Your task to perform on an android device: Add "lenovo thinkpad" to the cart on bestbuy.com, then select checkout. Image 0: 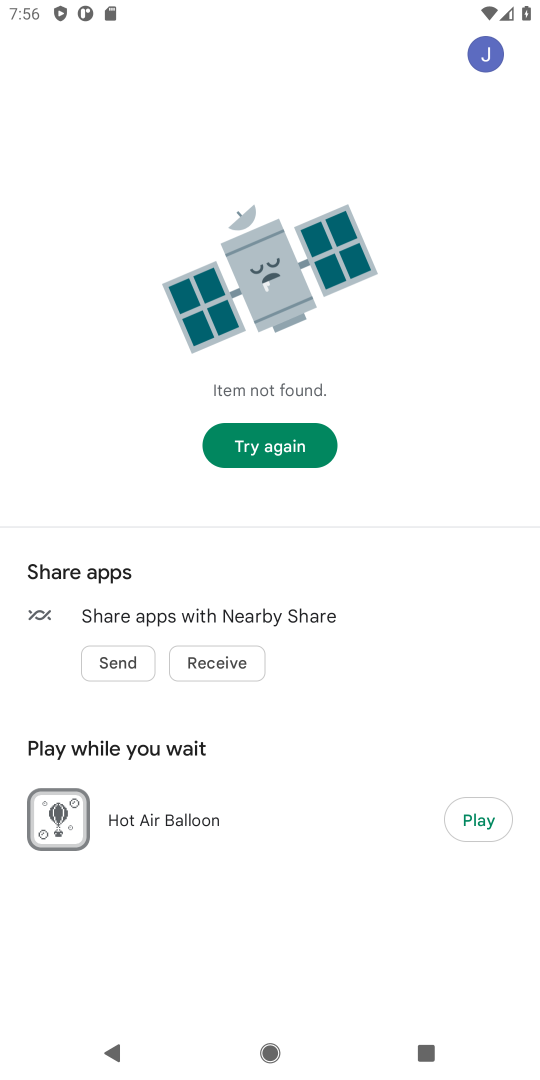
Step 0: press home button
Your task to perform on an android device: Add "lenovo thinkpad" to the cart on bestbuy.com, then select checkout. Image 1: 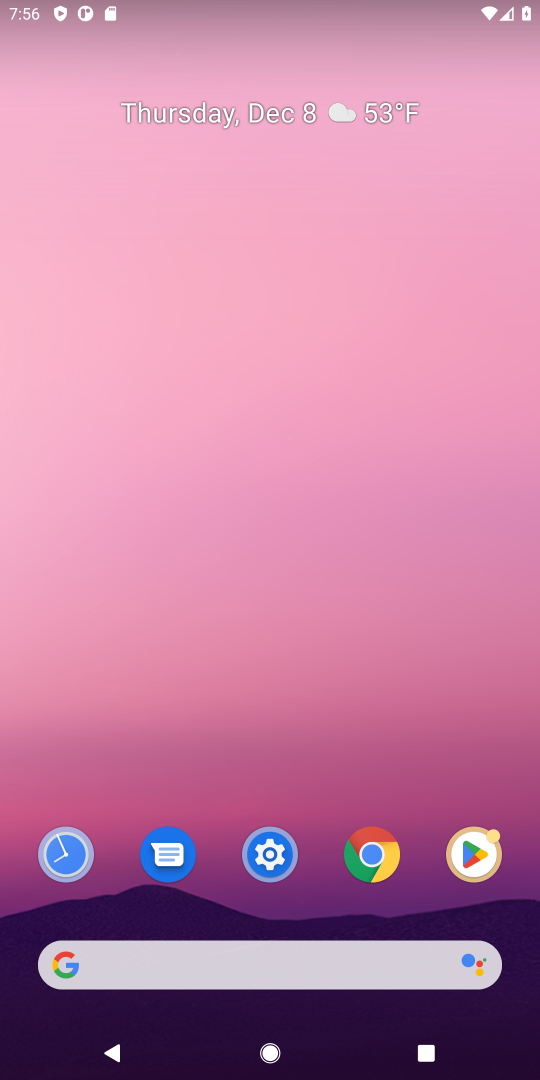
Step 1: click (99, 963)
Your task to perform on an android device: Add "lenovo thinkpad" to the cart on bestbuy.com, then select checkout. Image 2: 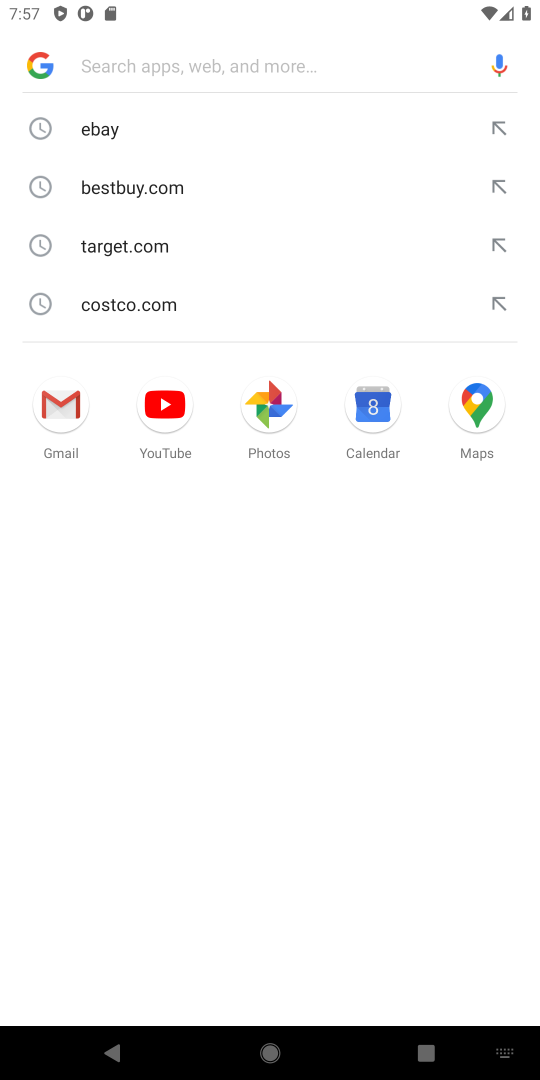
Step 2: type " bestbuy.com"
Your task to perform on an android device: Add "lenovo thinkpad" to the cart on bestbuy.com, then select checkout. Image 3: 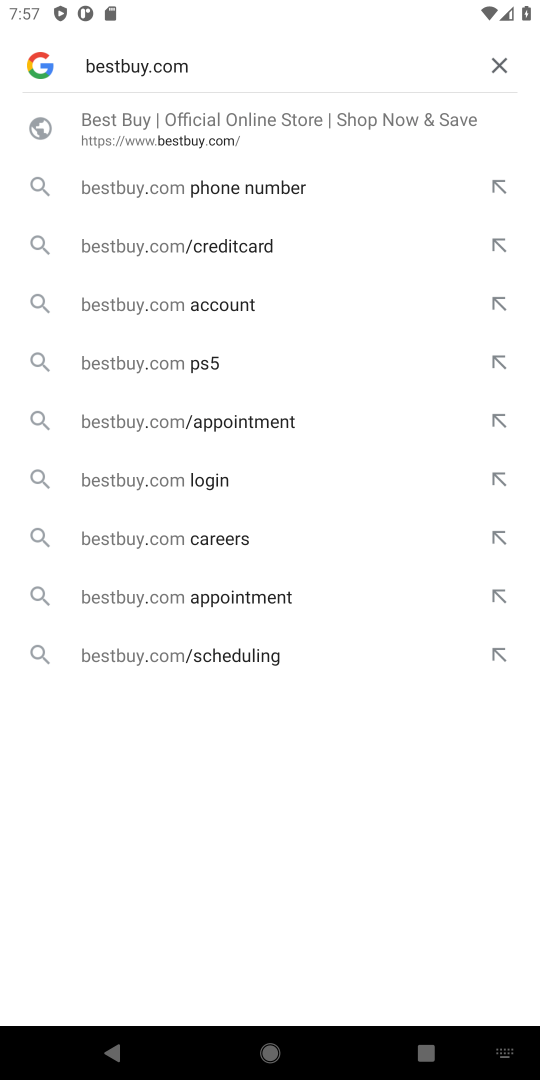
Step 3: press enter
Your task to perform on an android device: Add "lenovo thinkpad" to the cart on bestbuy.com, then select checkout. Image 4: 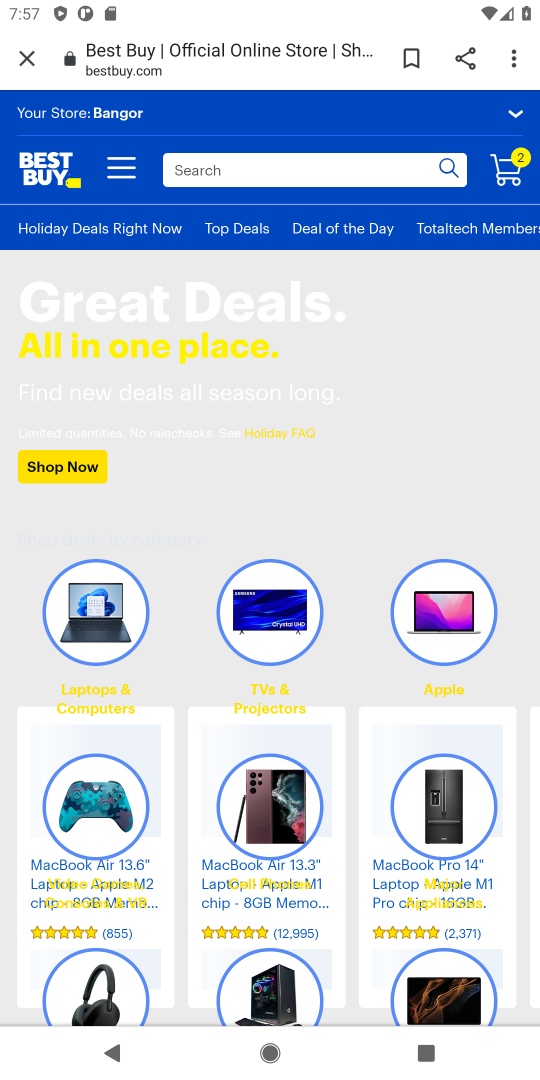
Step 4: click (169, 166)
Your task to perform on an android device: Add "lenovo thinkpad" to the cart on bestbuy.com, then select checkout. Image 5: 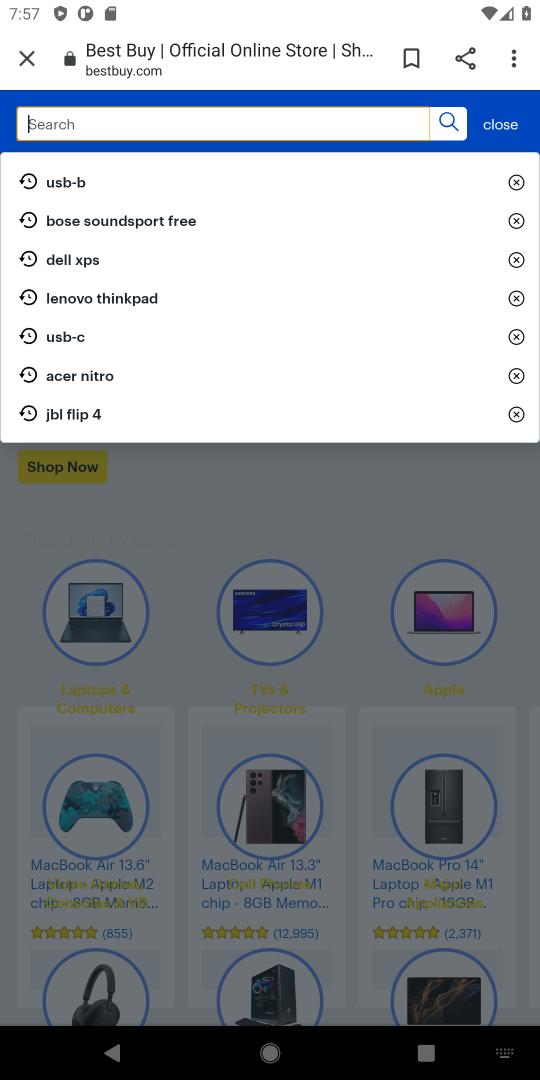
Step 5: type "lenovo thinkpad"
Your task to perform on an android device: Add "lenovo thinkpad" to the cart on bestbuy.com, then select checkout. Image 6: 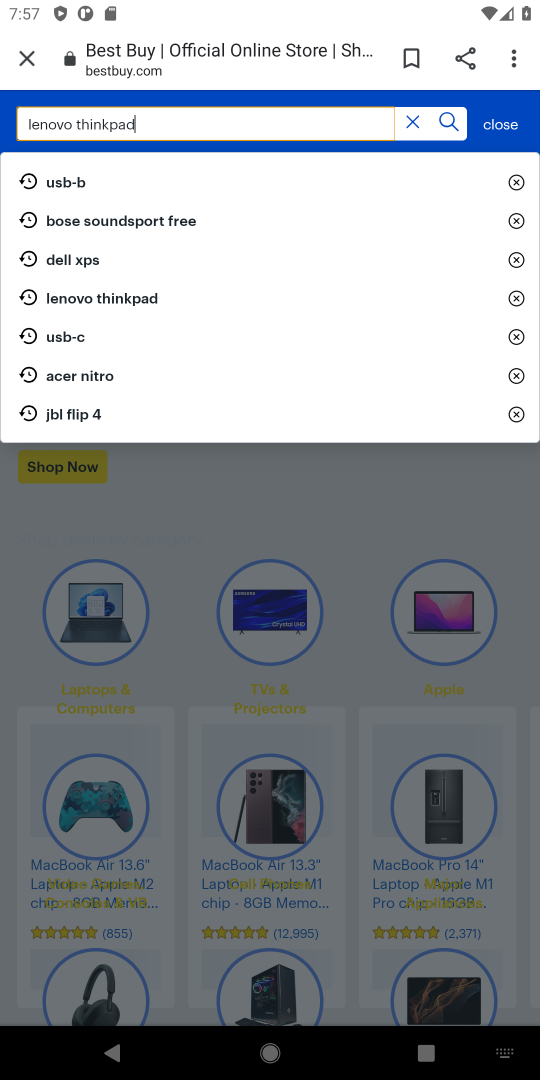
Step 6: press enter
Your task to perform on an android device: Add "lenovo thinkpad" to the cart on bestbuy.com, then select checkout. Image 7: 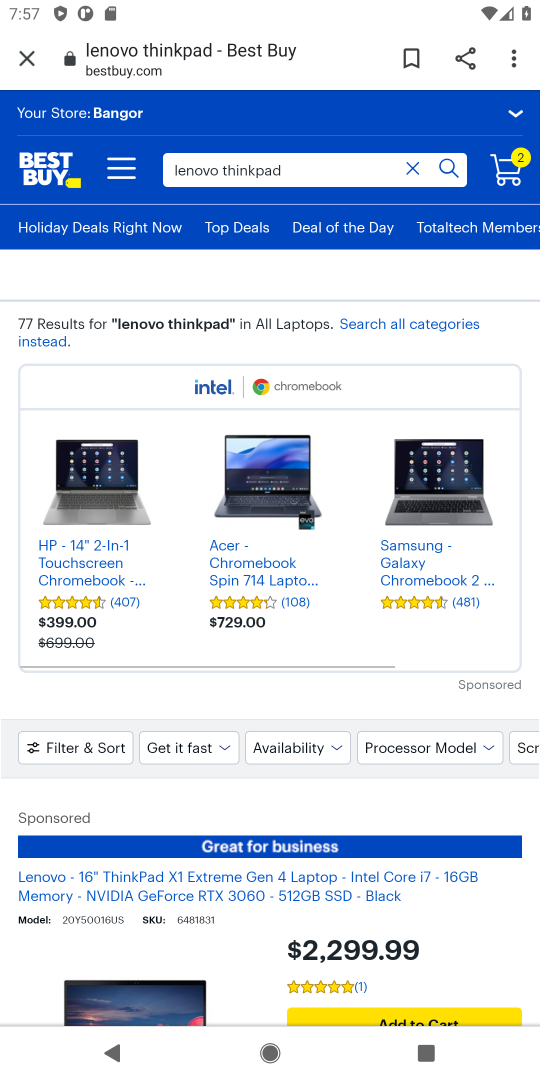
Step 7: drag from (226, 860) to (230, 402)
Your task to perform on an android device: Add "lenovo thinkpad" to the cart on bestbuy.com, then select checkout. Image 8: 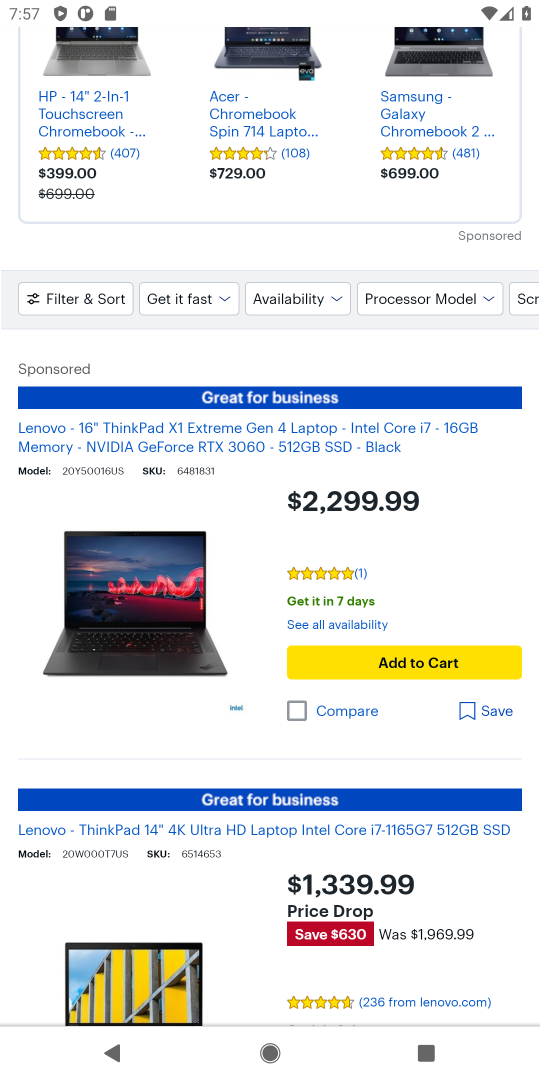
Step 8: click (419, 620)
Your task to perform on an android device: Add "lenovo thinkpad" to the cart on bestbuy.com, then select checkout. Image 9: 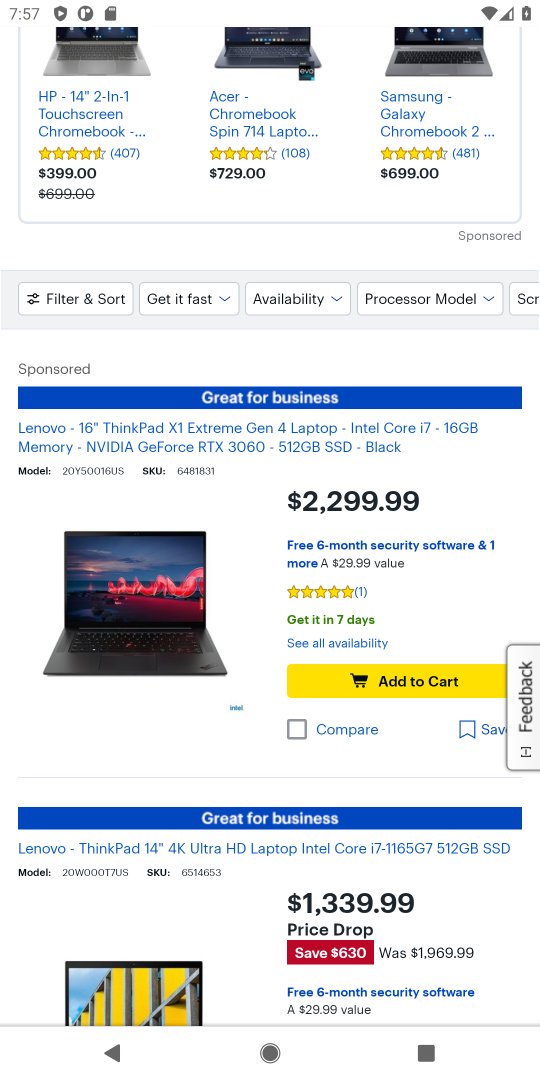
Step 9: click (395, 673)
Your task to perform on an android device: Add "lenovo thinkpad" to the cart on bestbuy.com, then select checkout. Image 10: 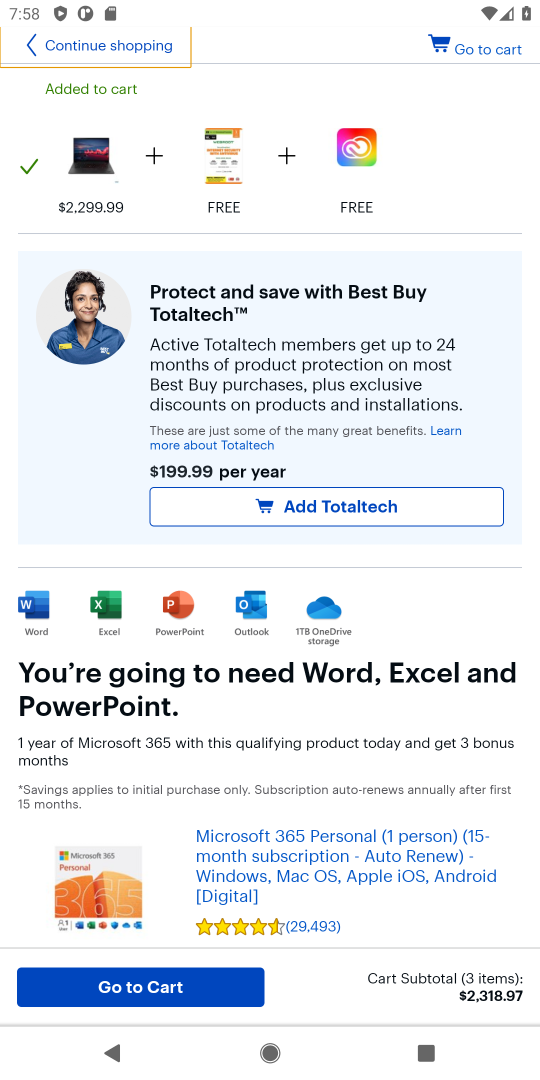
Step 10: click (137, 989)
Your task to perform on an android device: Add "lenovo thinkpad" to the cart on bestbuy.com, then select checkout. Image 11: 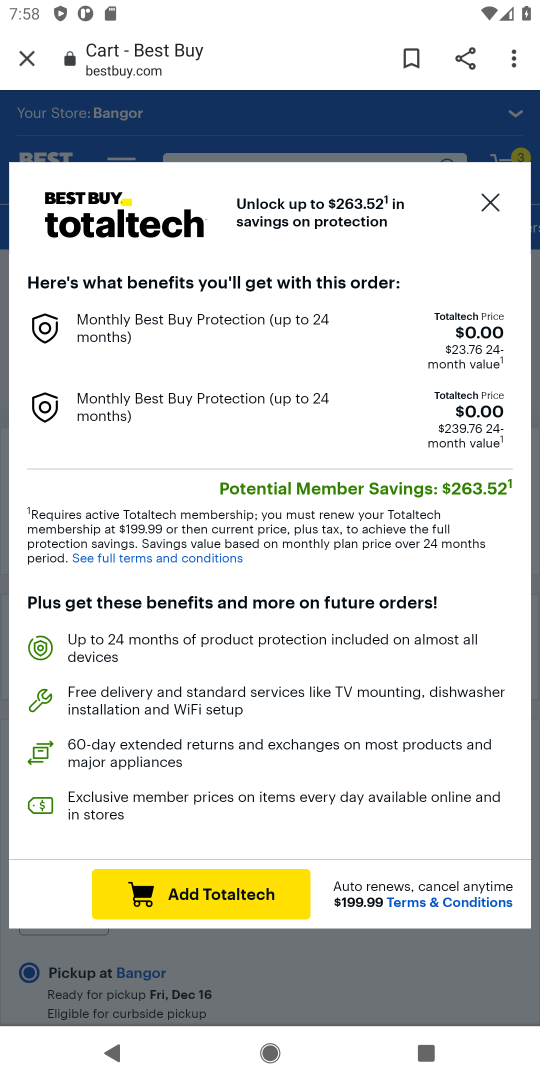
Step 11: click (486, 194)
Your task to perform on an android device: Add "lenovo thinkpad" to the cart on bestbuy.com, then select checkout. Image 12: 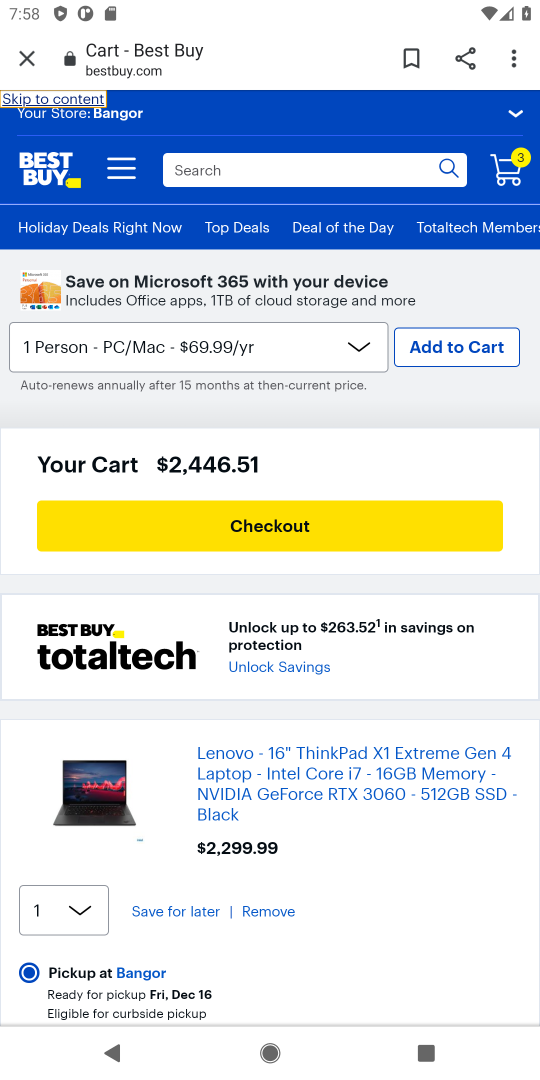
Step 12: click (281, 525)
Your task to perform on an android device: Add "lenovo thinkpad" to the cart on bestbuy.com, then select checkout. Image 13: 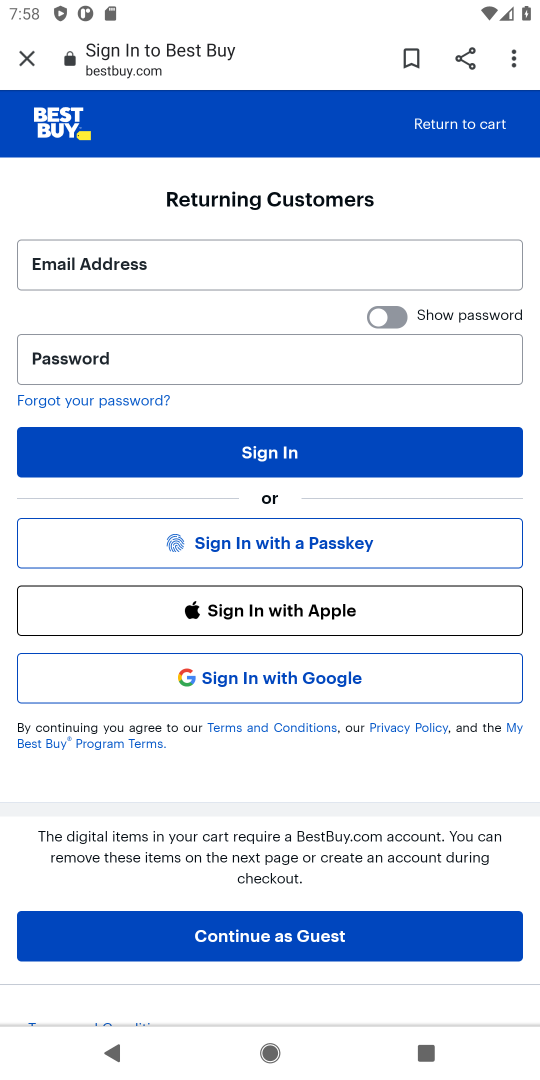
Step 13: task complete